Your task to perform on an android device: Open accessibility settings Image 0: 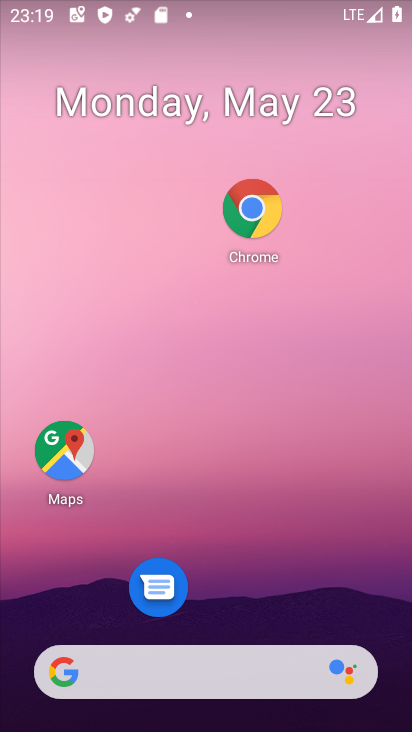
Step 0: drag from (297, 702) to (222, 303)
Your task to perform on an android device: Open accessibility settings Image 1: 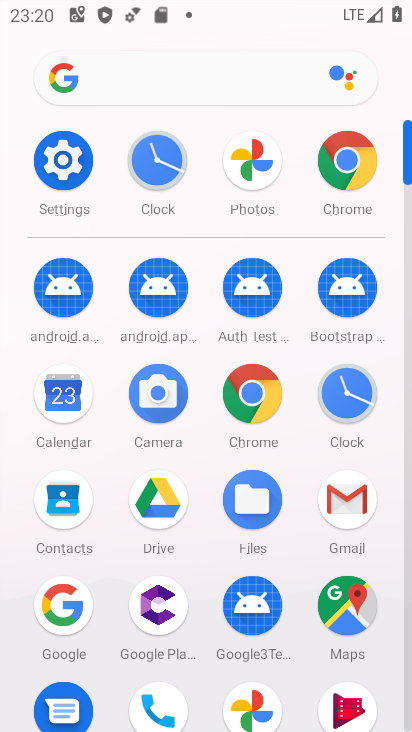
Step 1: click (69, 155)
Your task to perform on an android device: Open accessibility settings Image 2: 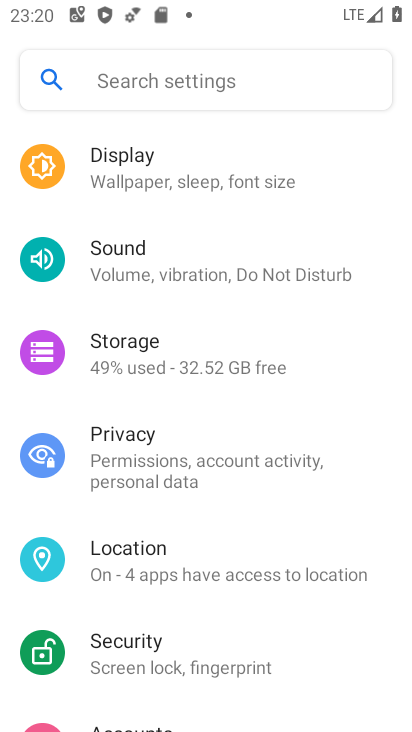
Step 2: drag from (205, 658) to (209, 269)
Your task to perform on an android device: Open accessibility settings Image 3: 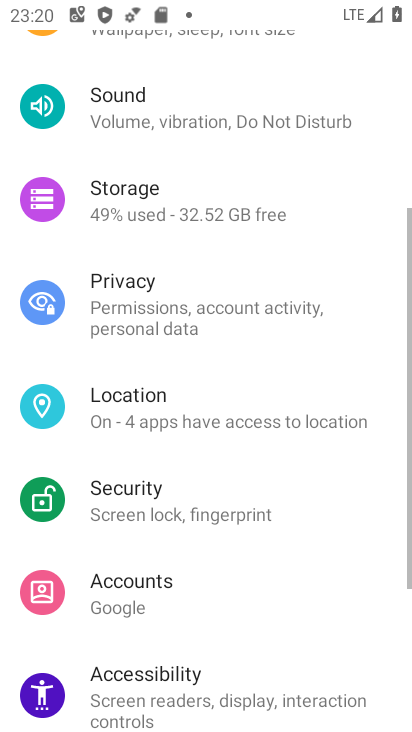
Step 3: drag from (238, 428) to (216, 127)
Your task to perform on an android device: Open accessibility settings Image 4: 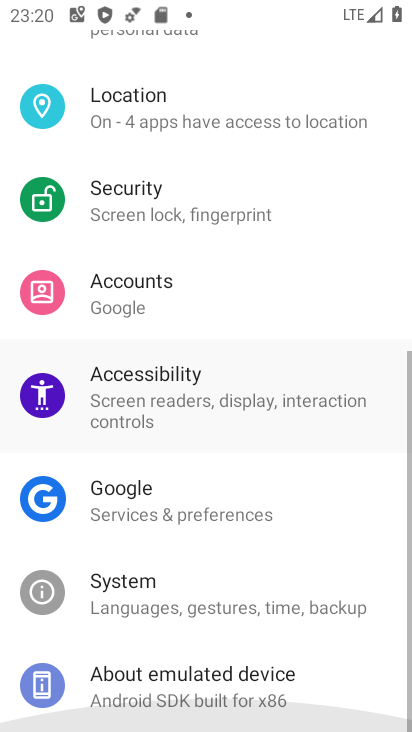
Step 4: drag from (224, 357) to (217, 217)
Your task to perform on an android device: Open accessibility settings Image 5: 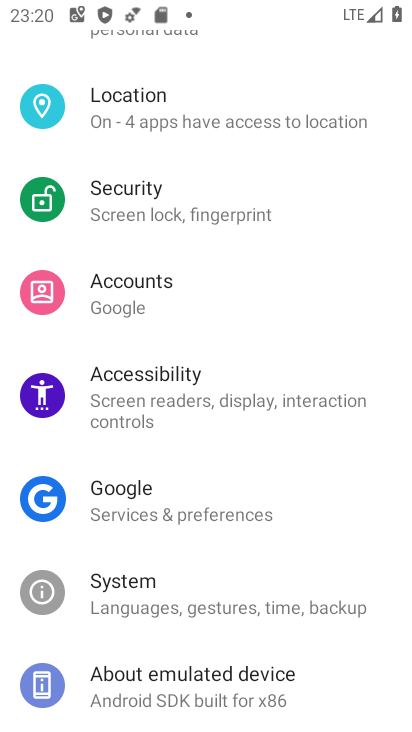
Step 5: drag from (247, 474) to (167, 197)
Your task to perform on an android device: Open accessibility settings Image 6: 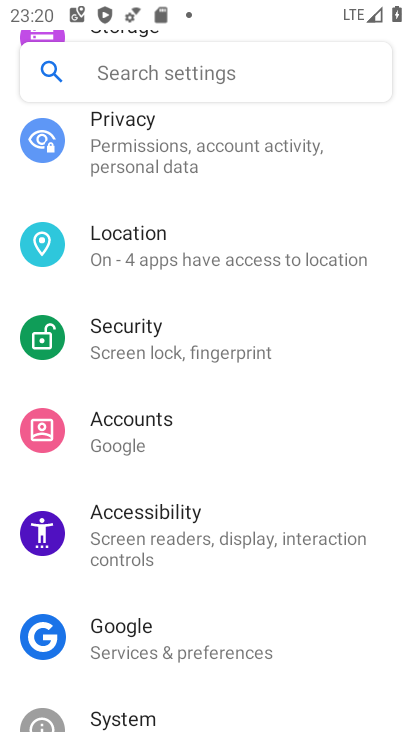
Step 6: click (144, 501)
Your task to perform on an android device: Open accessibility settings Image 7: 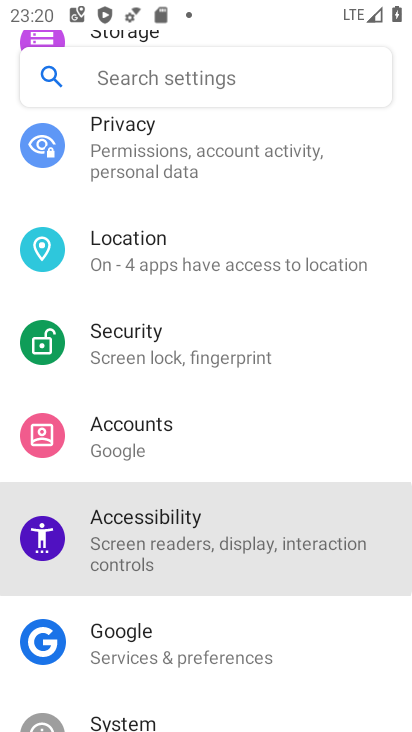
Step 7: click (147, 534)
Your task to perform on an android device: Open accessibility settings Image 8: 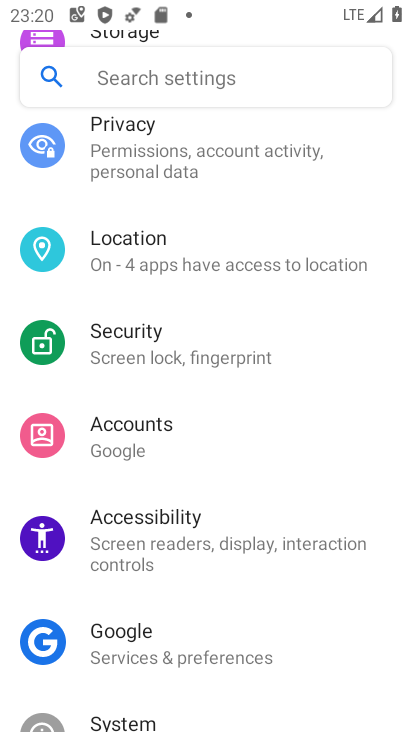
Step 8: click (147, 535)
Your task to perform on an android device: Open accessibility settings Image 9: 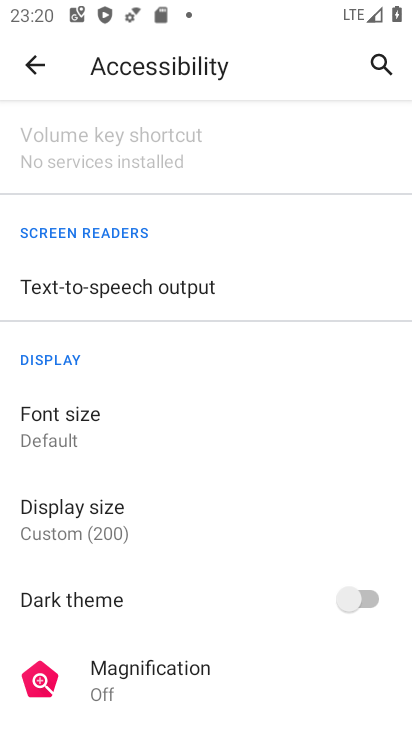
Step 9: task complete